Your task to perform on an android device: Go to Maps Image 0: 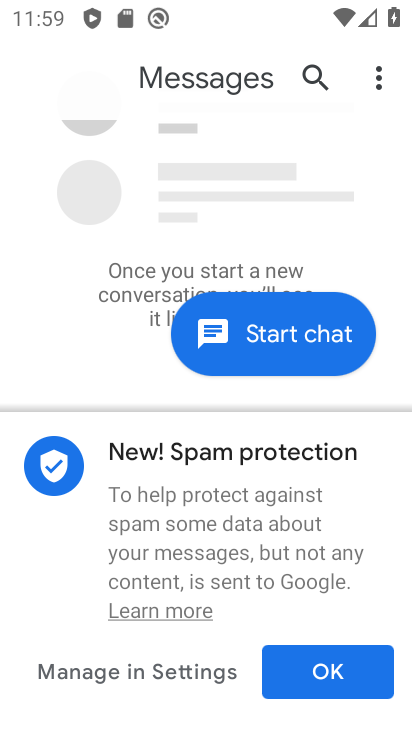
Step 0: press home button
Your task to perform on an android device: Go to Maps Image 1: 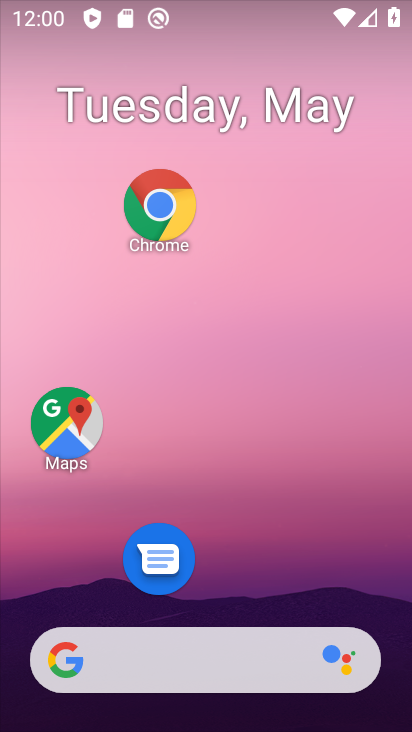
Step 1: drag from (210, 597) to (236, 72)
Your task to perform on an android device: Go to Maps Image 2: 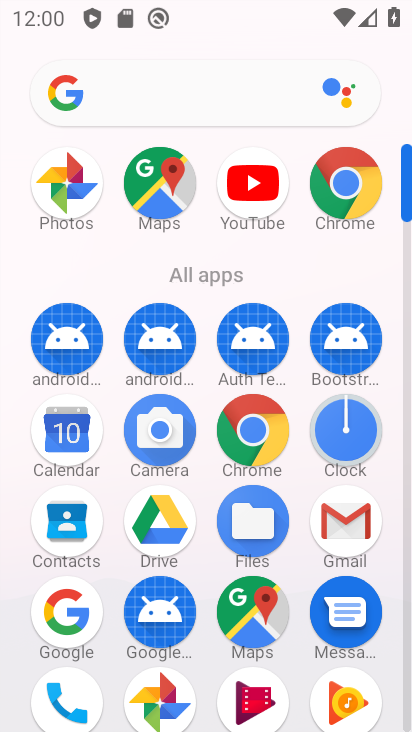
Step 2: click (240, 607)
Your task to perform on an android device: Go to Maps Image 3: 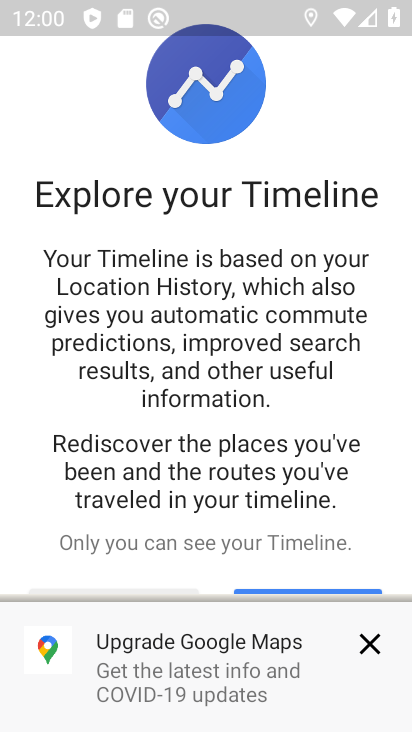
Step 3: click (373, 638)
Your task to perform on an android device: Go to Maps Image 4: 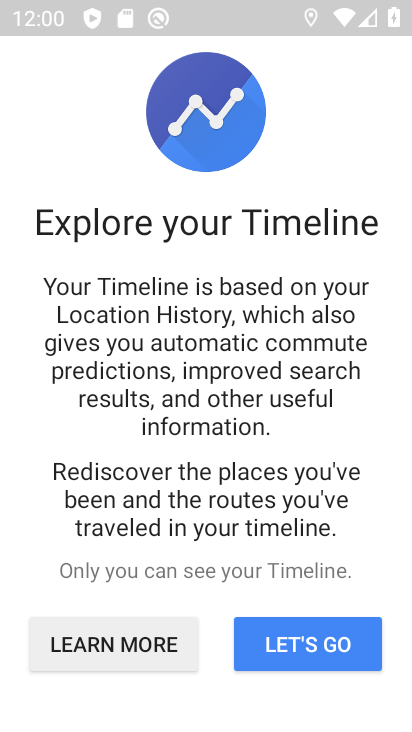
Step 4: click (305, 638)
Your task to perform on an android device: Go to Maps Image 5: 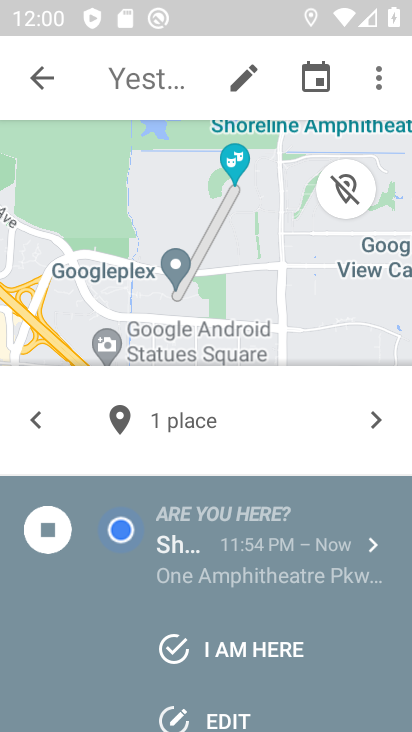
Step 5: task complete